Your task to perform on an android device: Search for sushi restaurants on Maps Image 0: 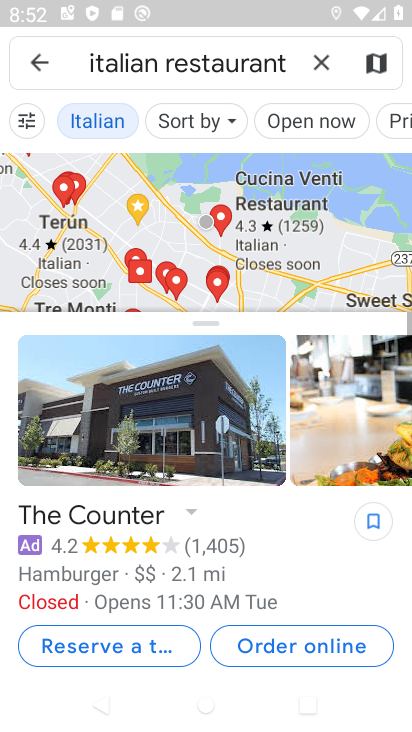
Step 0: click (152, 549)
Your task to perform on an android device: Search for sushi restaurants on Maps Image 1: 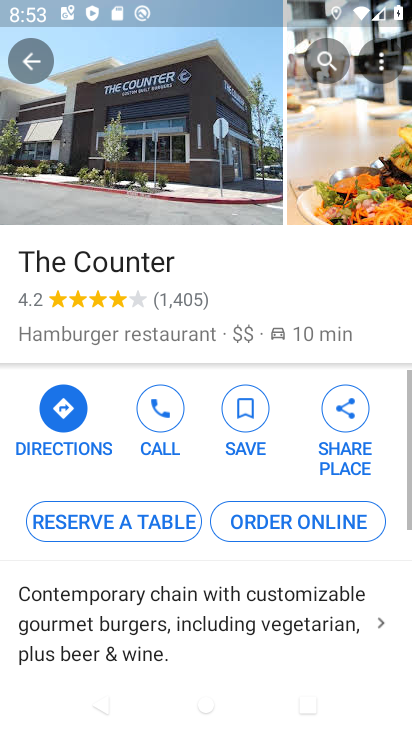
Step 1: click (26, 66)
Your task to perform on an android device: Search for sushi restaurants on Maps Image 2: 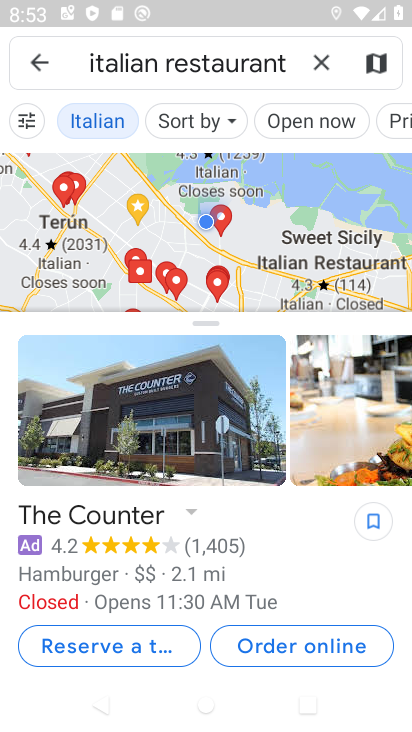
Step 2: click (323, 73)
Your task to perform on an android device: Search for sushi restaurants on Maps Image 3: 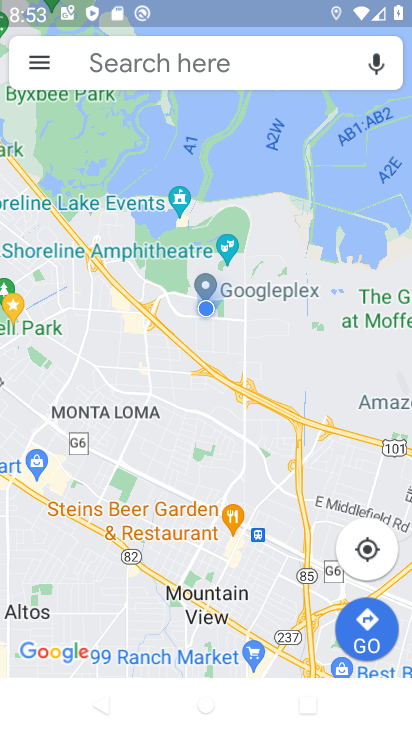
Step 3: click (238, 74)
Your task to perform on an android device: Search for sushi restaurants on Maps Image 4: 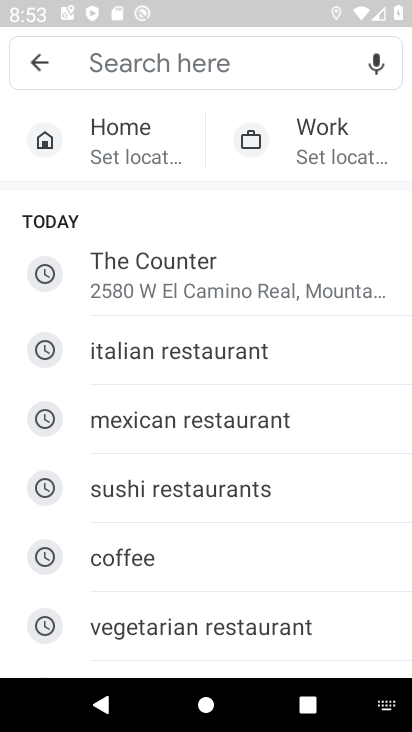
Step 4: click (242, 503)
Your task to perform on an android device: Search for sushi restaurants on Maps Image 5: 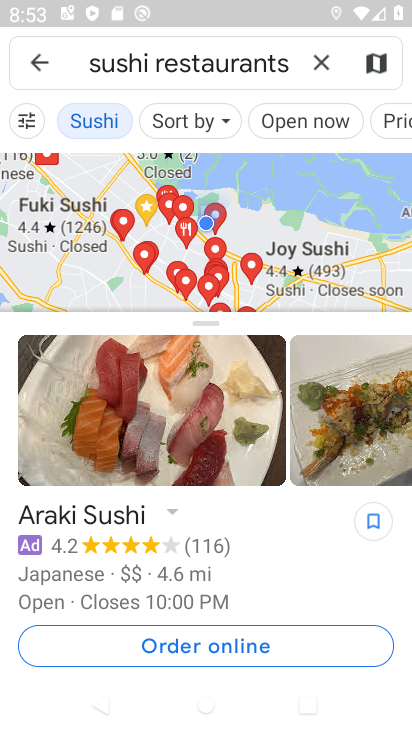
Step 5: task complete